Your task to perform on an android device: turn off improve location accuracy Image 0: 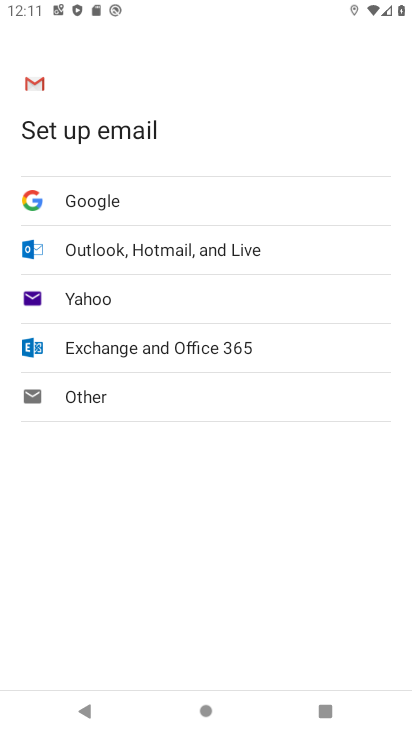
Step 0: press home button
Your task to perform on an android device: turn off improve location accuracy Image 1: 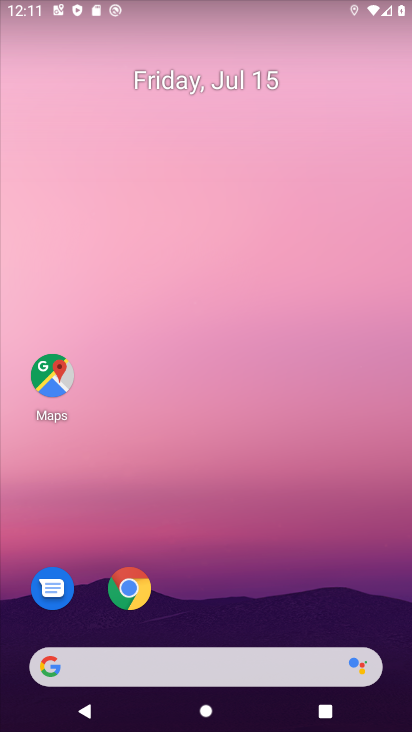
Step 1: drag from (262, 662) to (224, 101)
Your task to perform on an android device: turn off improve location accuracy Image 2: 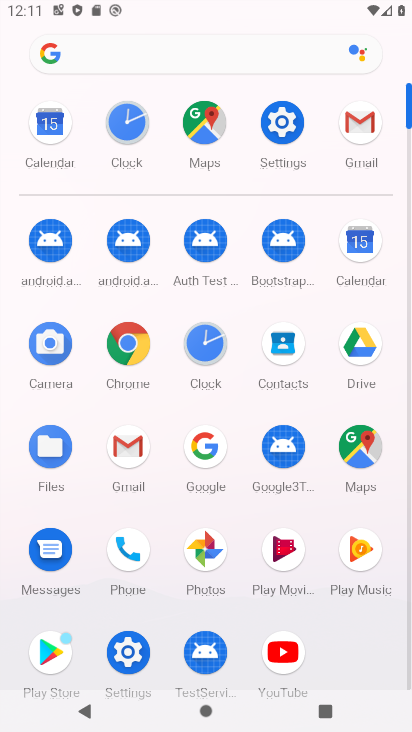
Step 2: click (290, 130)
Your task to perform on an android device: turn off improve location accuracy Image 3: 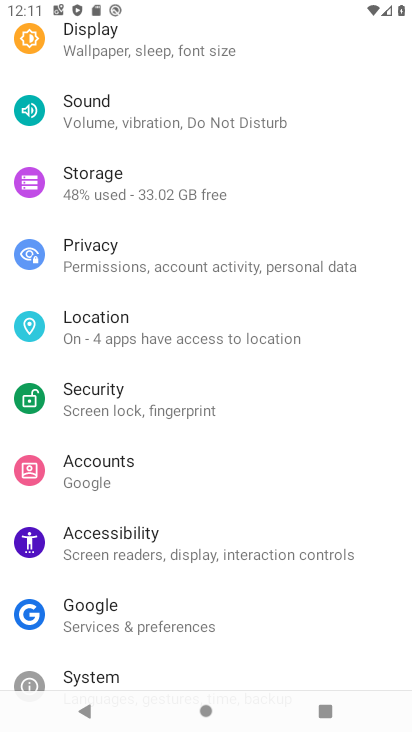
Step 3: click (242, 342)
Your task to perform on an android device: turn off improve location accuracy Image 4: 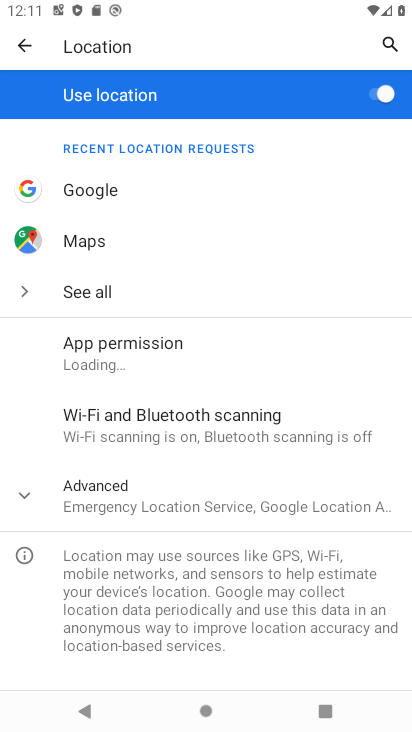
Step 4: click (304, 506)
Your task to perform on an android device: turn off improve location accuracy Image 5: 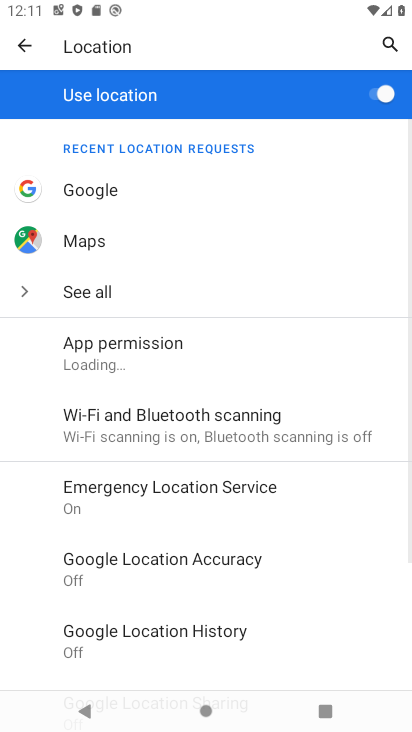
Step 5: click (255, 559)
Your task to perform on an android device: turn off improve location accuracy Image 6: 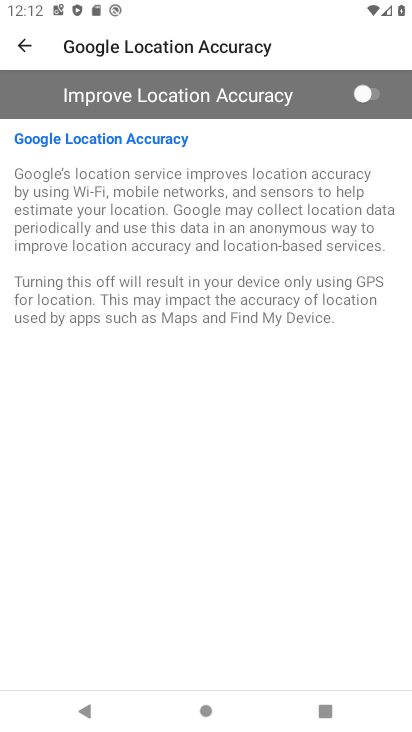
Step 6: task complete